Your task to perform on an android device: snooze an email in the gmail app Image 0: 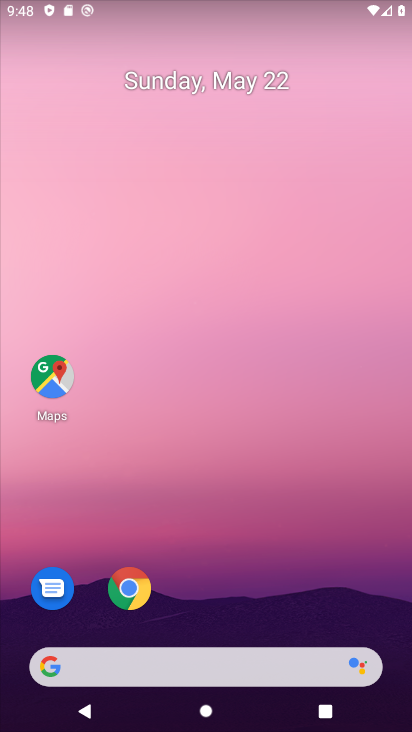
Step 0: drag from (225, 605) to (171, 237)
Your task to perform on an android device: snooze an email in the gmail app Image 1: 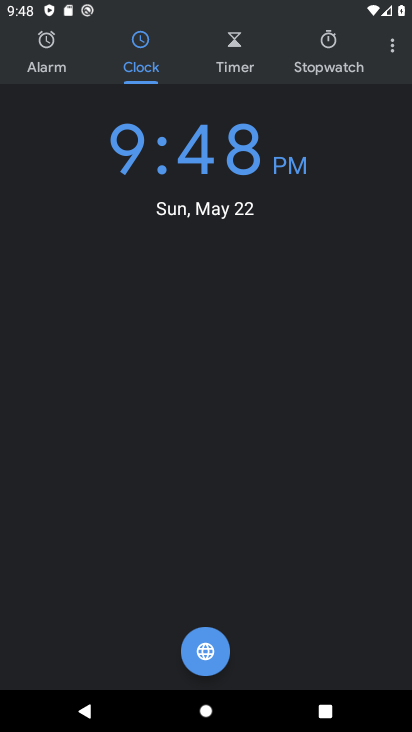
Step 1: press home button
Your task to perform on an android device: snooze an email in the gmail app Image 2: 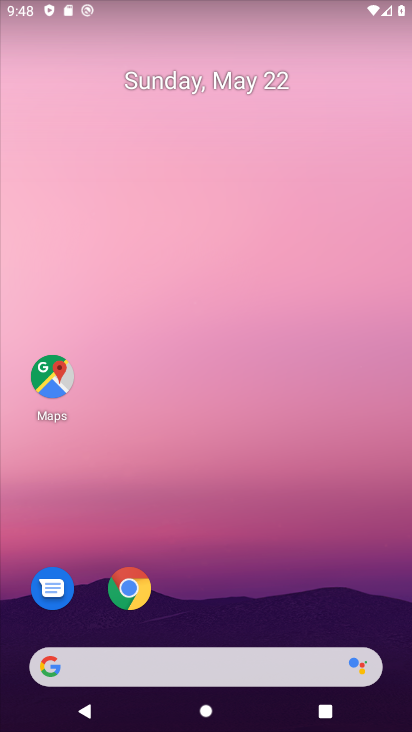
Step 2: drag from (213, 600) to (187, 139)
Your task to perform on an android device: snooze an email in the gmail app Image 3: 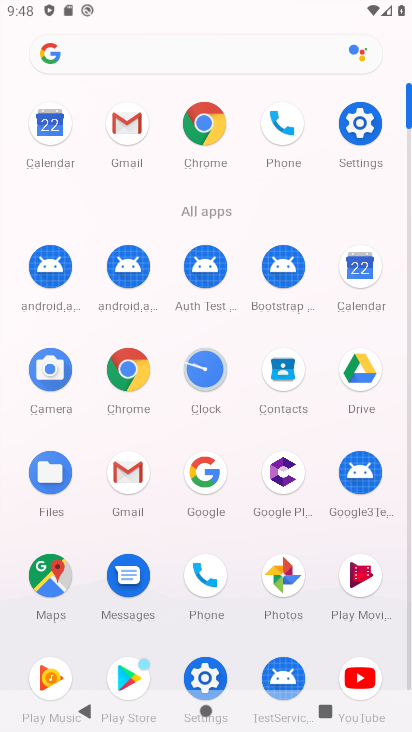
Step 3: click (131, 487)
Your task to perform on an android device: snooze an email in the gmail app Image 4: 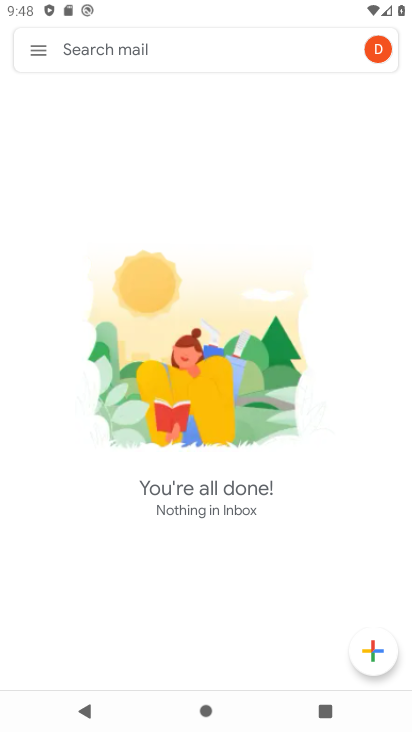
Step 4: click (37, 61)
Your task to perform on an android device: snooze an email in the gmail app Image 5: 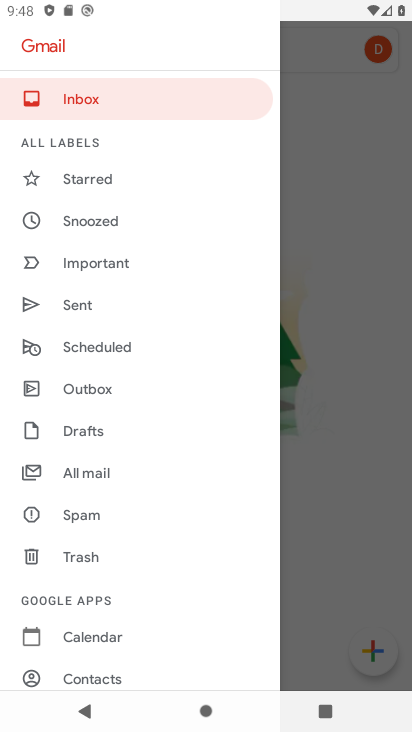
Step 5: click (336, 436)
Your task to perform on an android device: snooze an email in the gmail app Image 6: 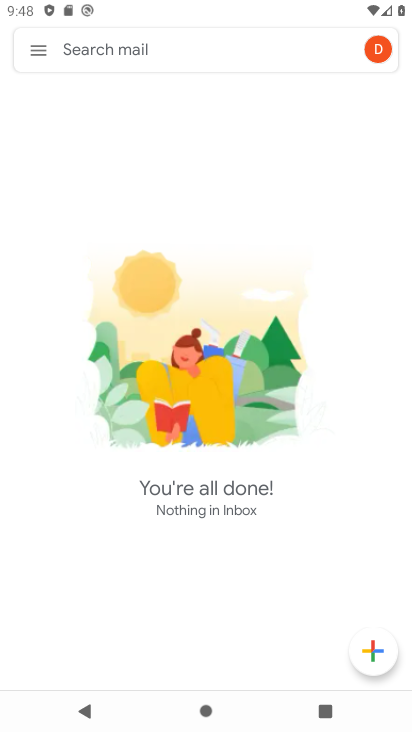
Step 6: task complete